Your task to perform on an android device: install app "The Home Depot" Image 0: 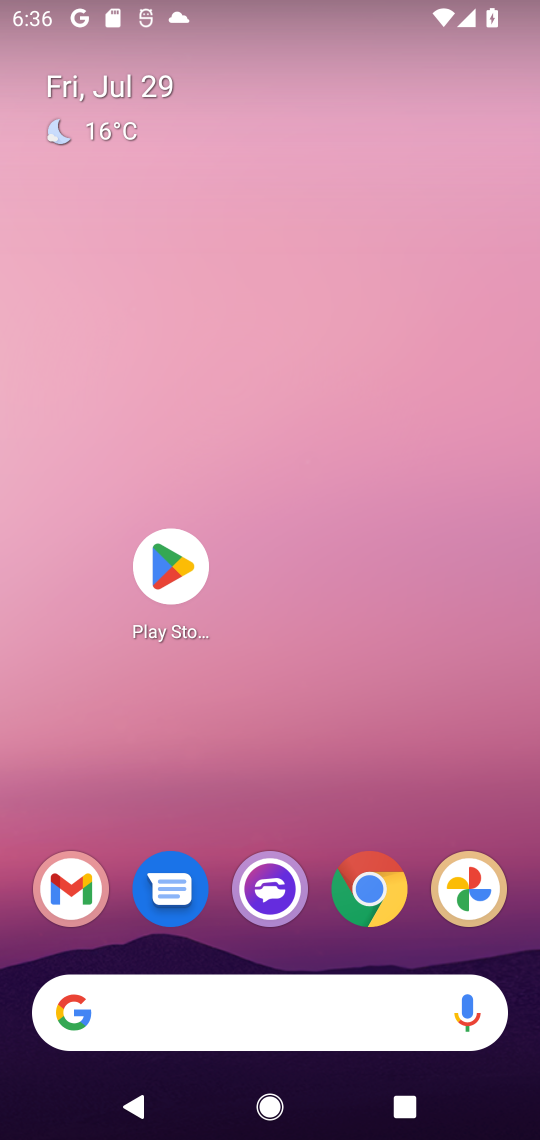
Step 0: press home button
Your task to perform on an android device: install app "The Home Depot" Image 1: 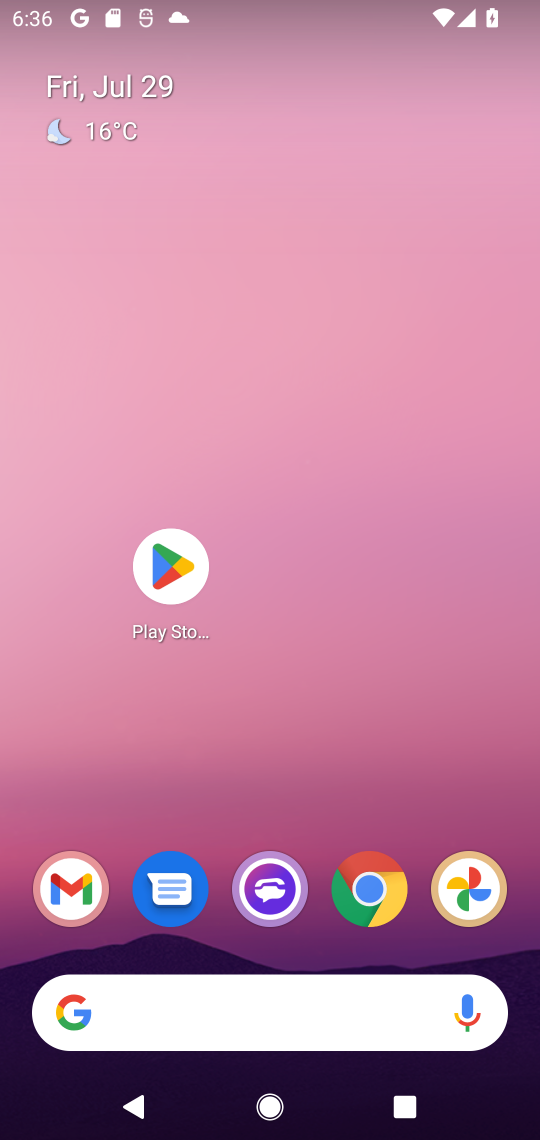
Step 1: click (175, 570)
Your task to perform on an android device: install app "The Home Depot" Image 2: 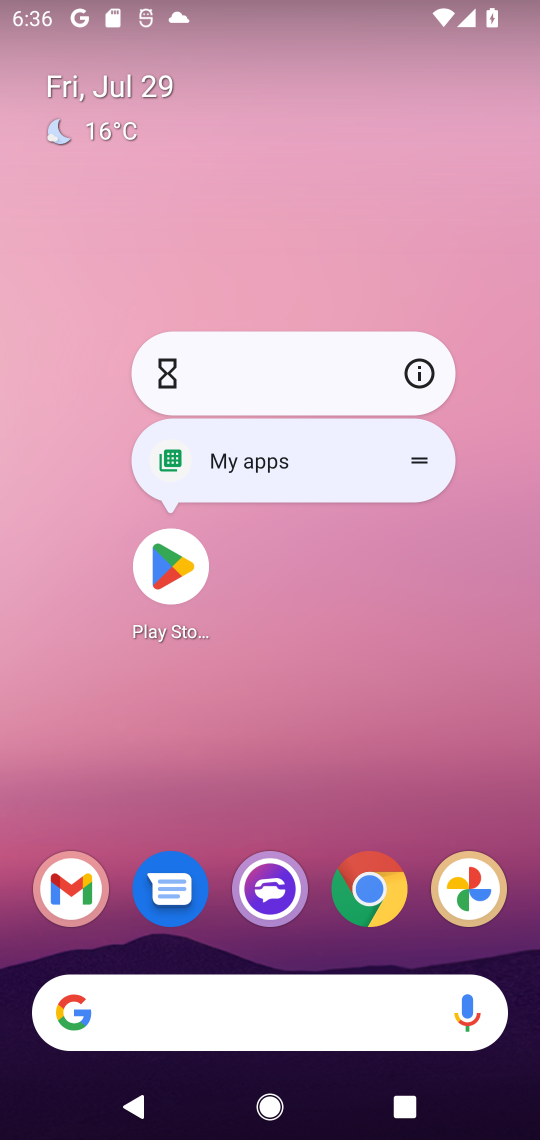
Step 2: click (175, 571)
Your task to perform on an android device: install app "The Home Depot" Image 3: 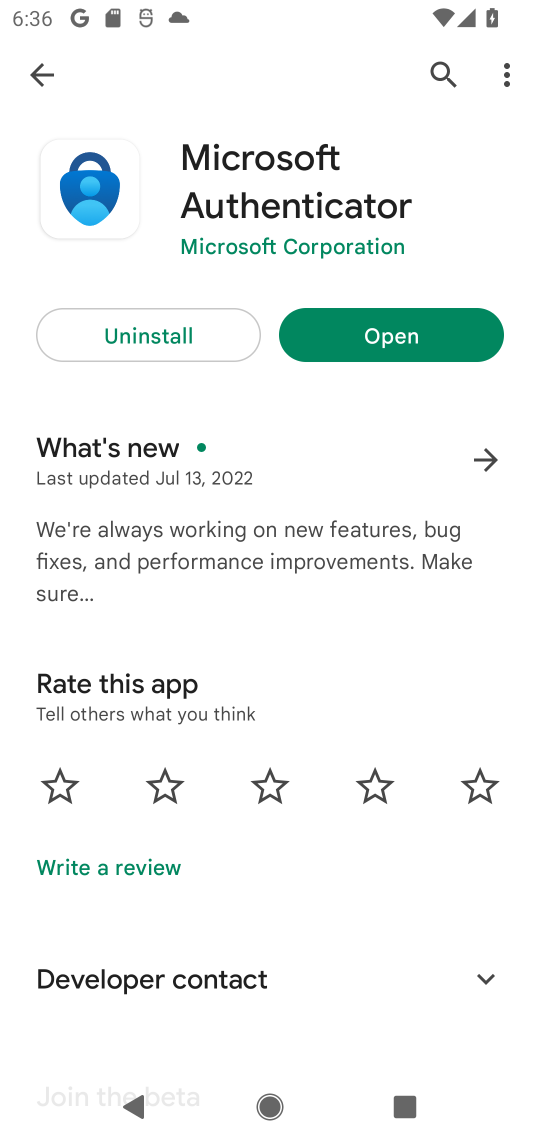
Step 3: click (441, 59)
Your task to perform on an android device: install app "The Home Depot" Image 4: 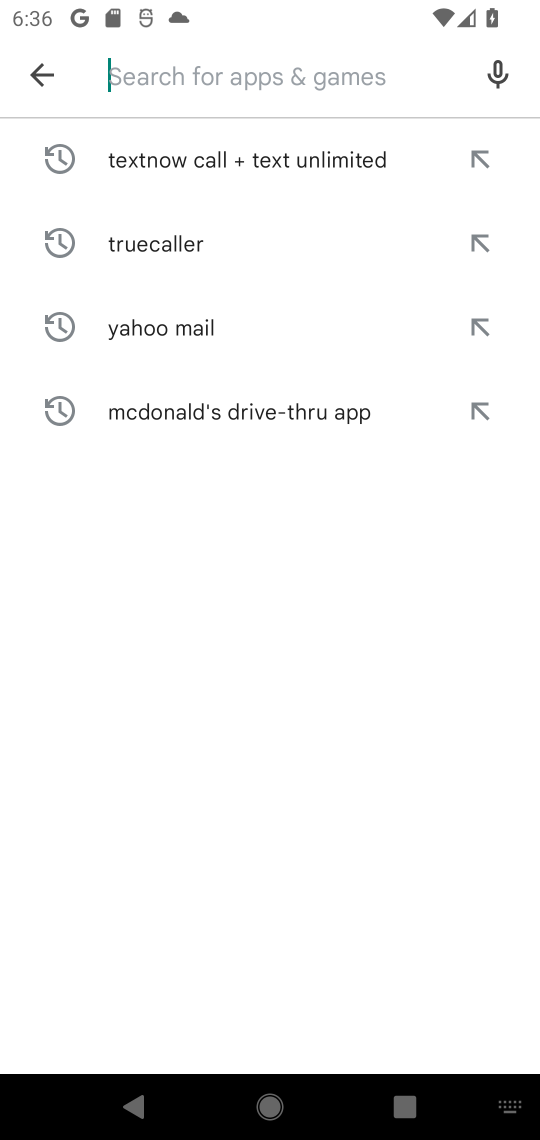
Step 4: type "The Home Depot"
Your task to perform on an android device: install app "The Home Depot" Image 5: 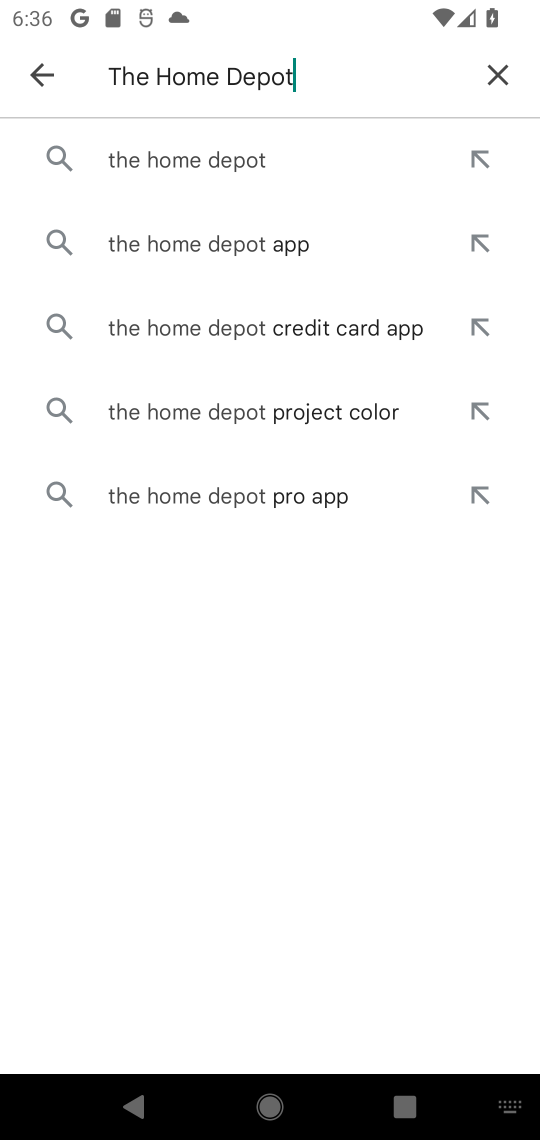
Step 5: click (153, 157)
Your task to perform on an android device: install app "The Home Depot" Image 6: 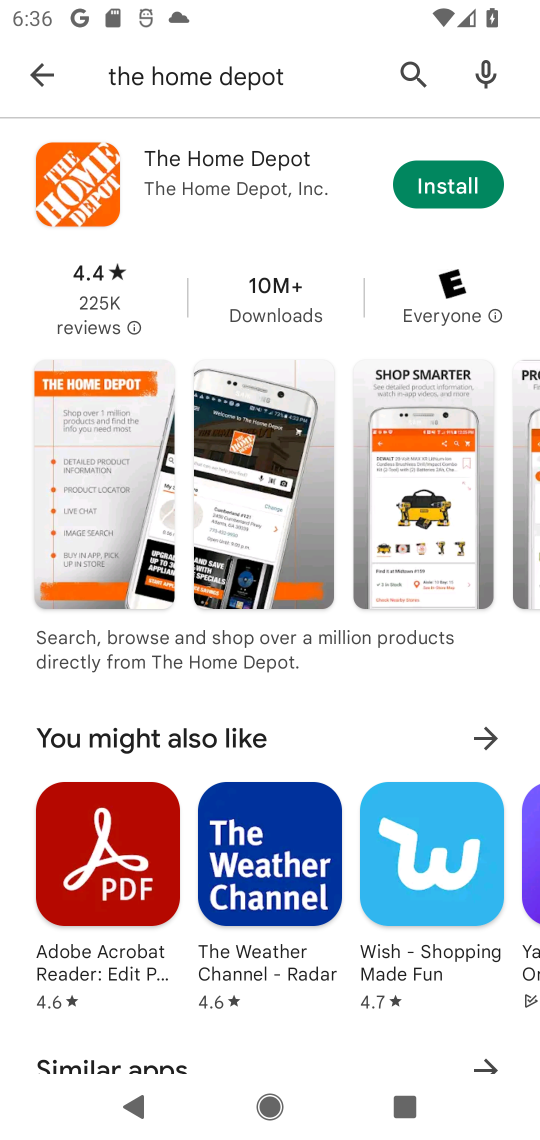
Step 6: click (460, 184)
Your task to perform on an android device: install app "The Home Depot" Image 7: 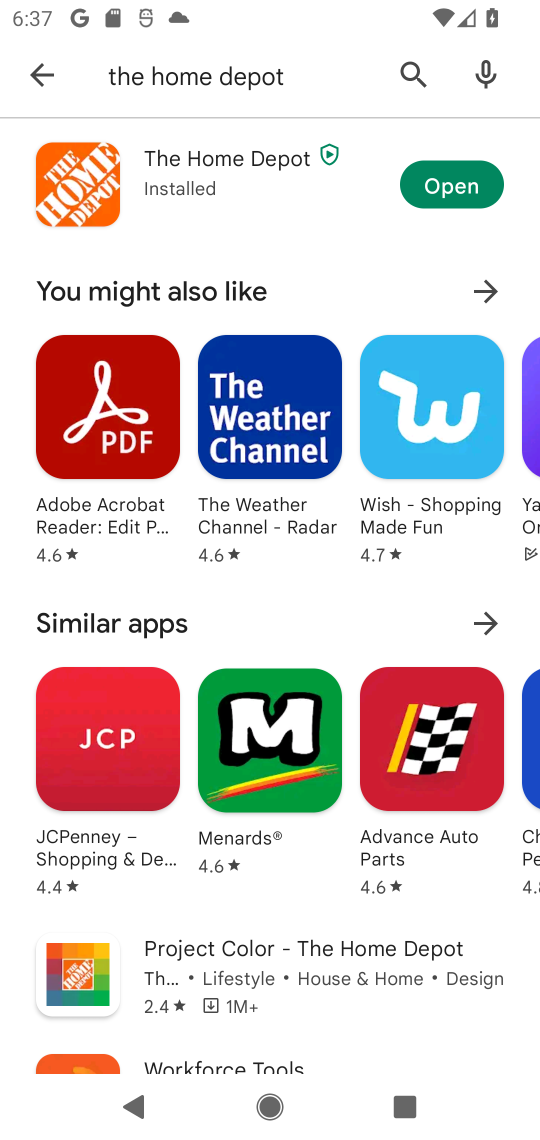
Step 7: task complete